Your task to perform on an android device: Go to notification settings Image 0: 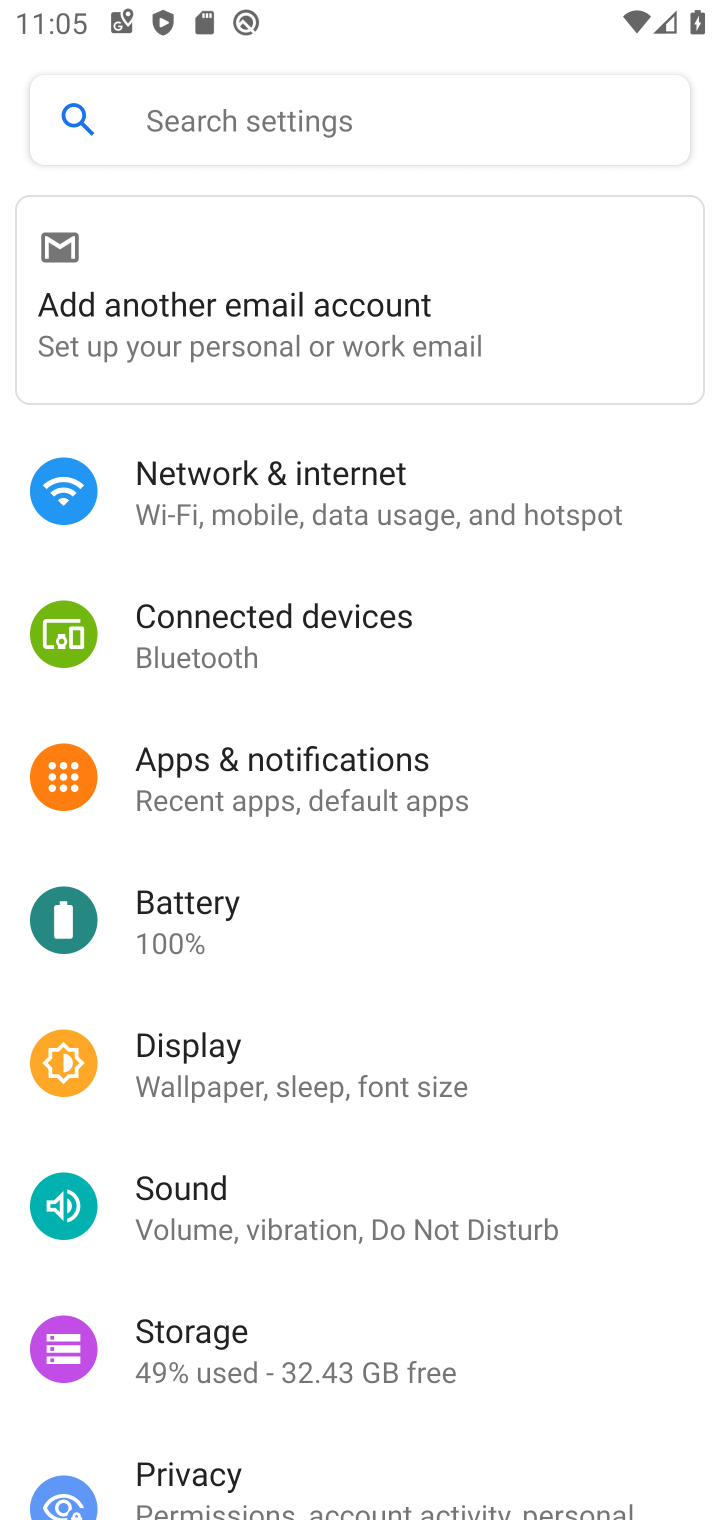
Step 0: click (254, 777)
Your task to perform on an android device: Go to notification settings Image 1: 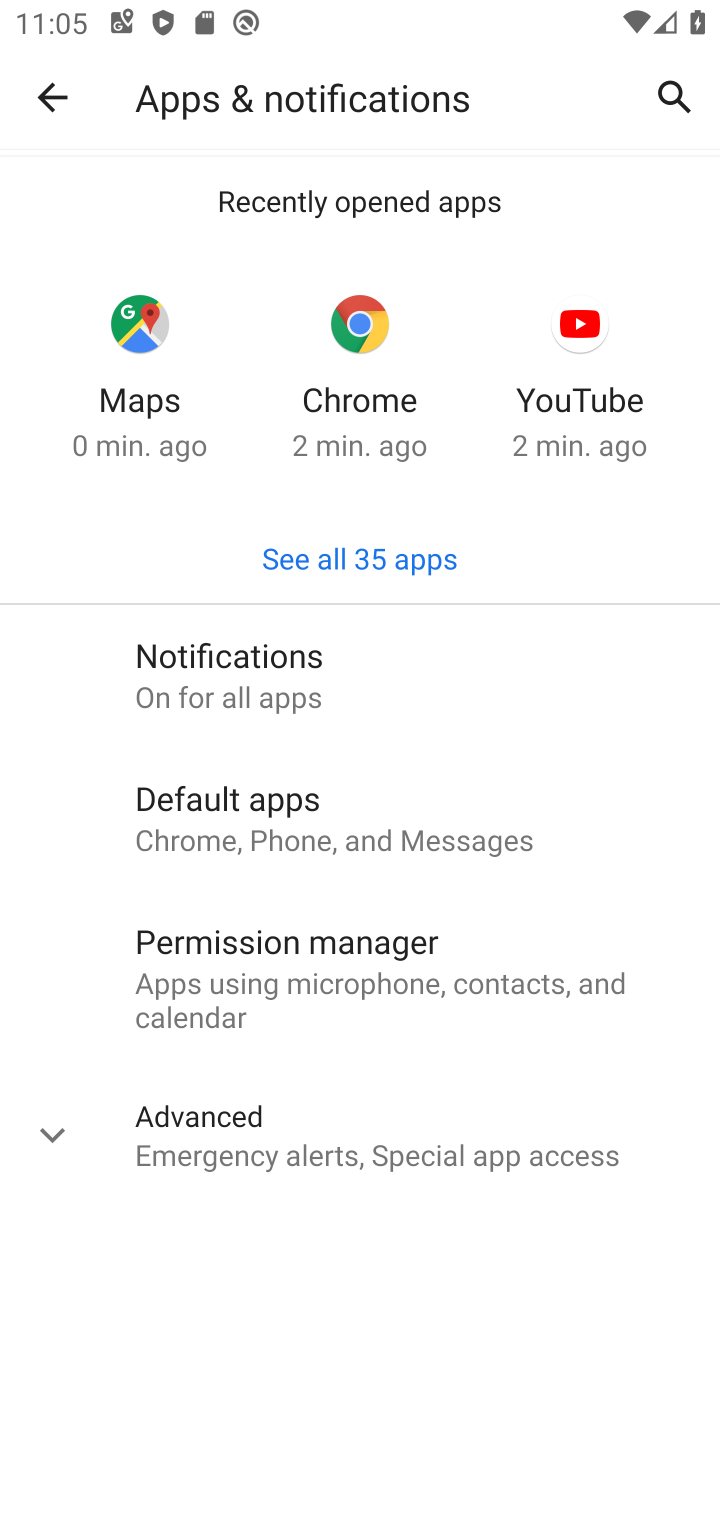
Step 1: click (213, 683)
Your task to perform on an android device: Go to notification settings Image 2: 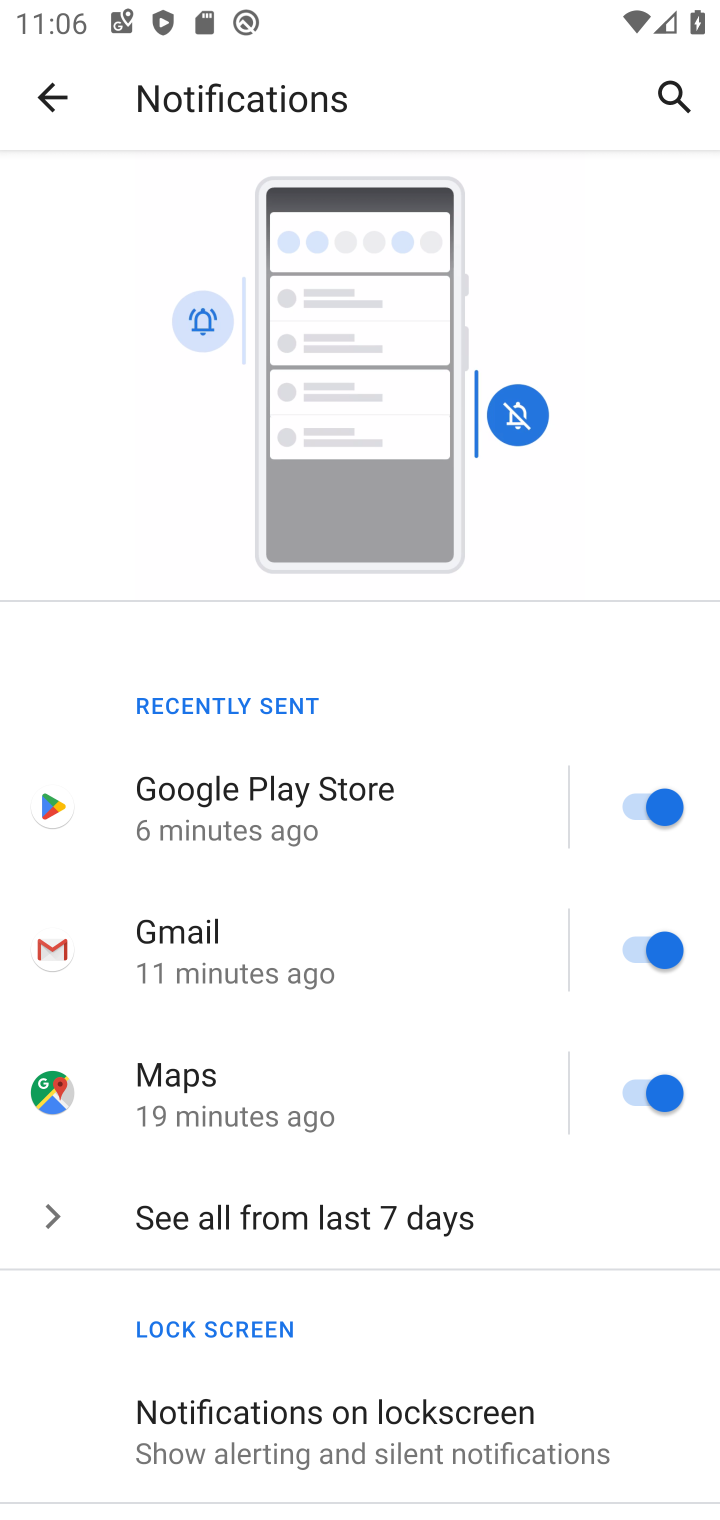
Step 2: task complete